Your task to perform on an android device: toggle sleep mode Image 0: 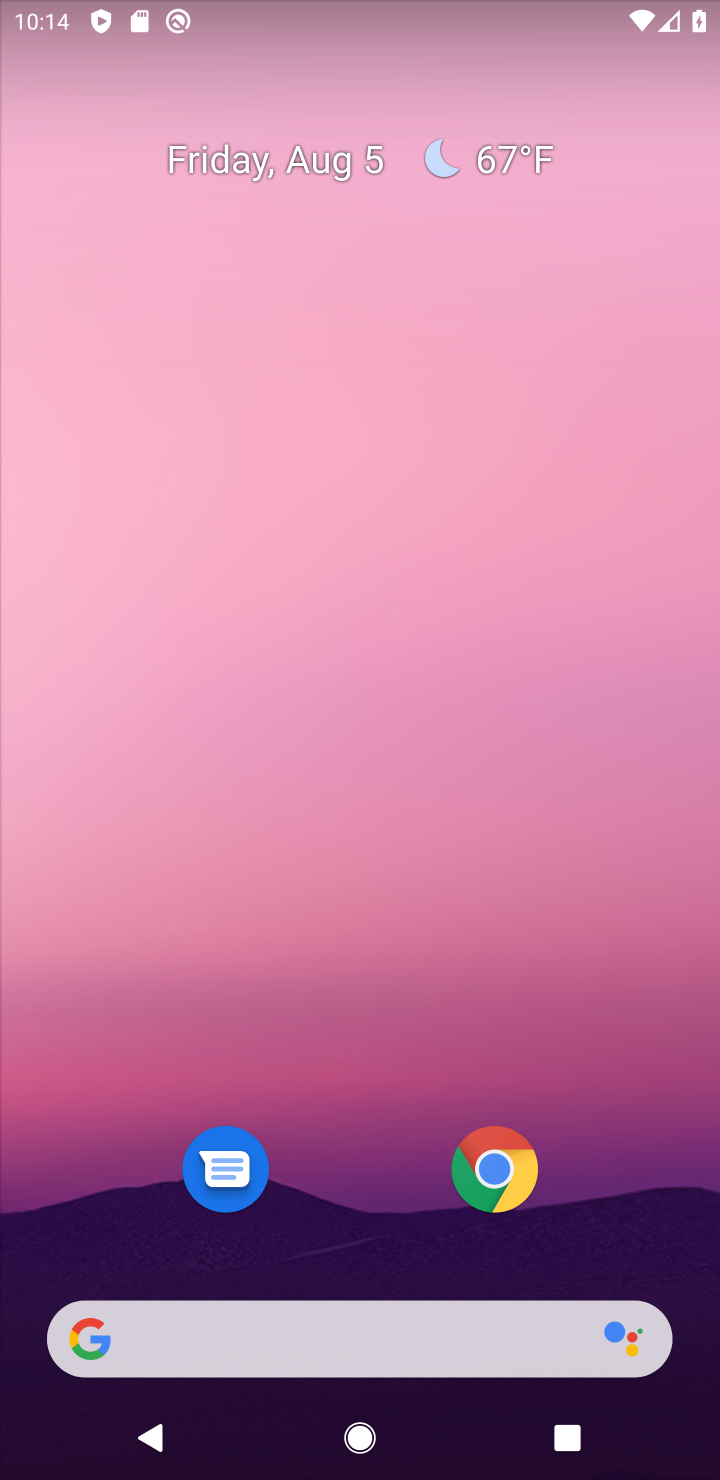
Step 0: drag from (669, 1236) to (573, 327)
Your task to perform on an android device: toggle sleep mode Image 1: 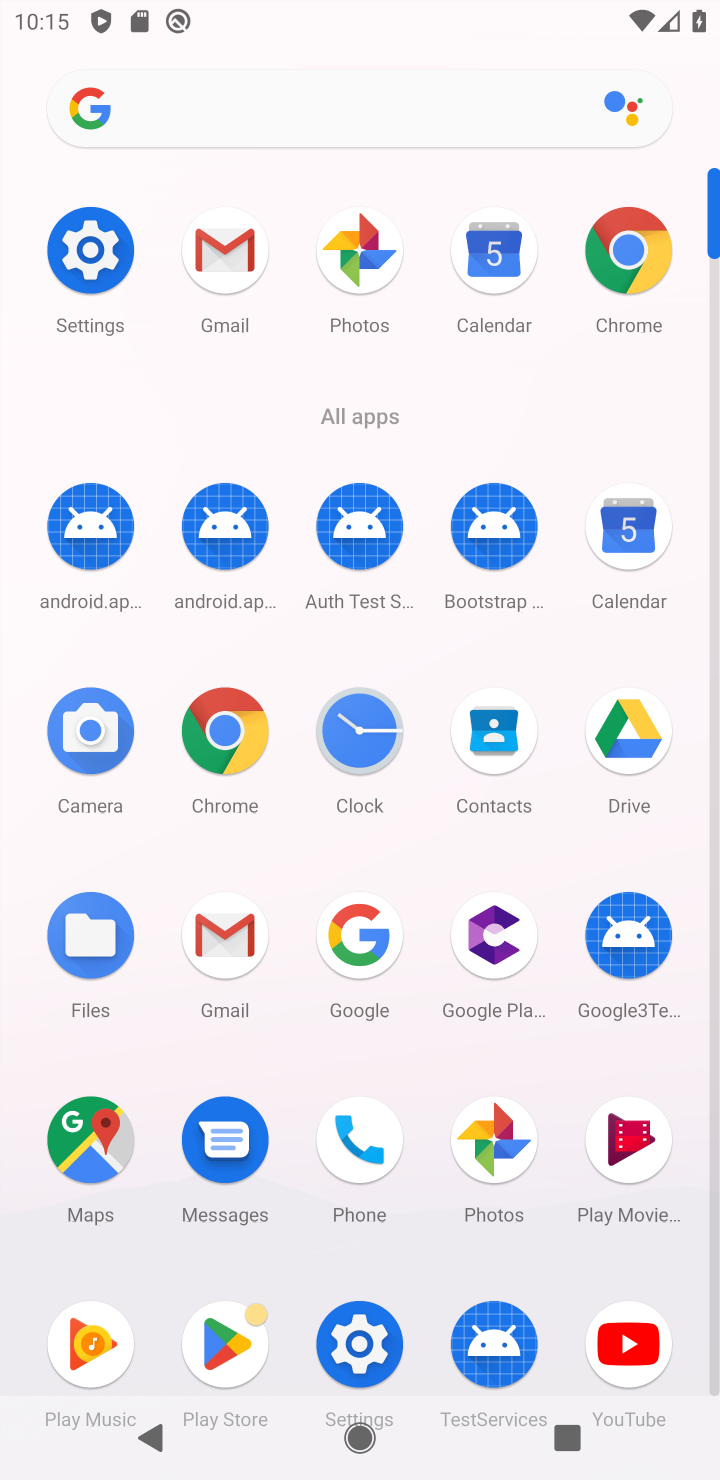
Step 1: click (364, 1346)
Your task to perform on an android device: toggle sleep mode Image 2: 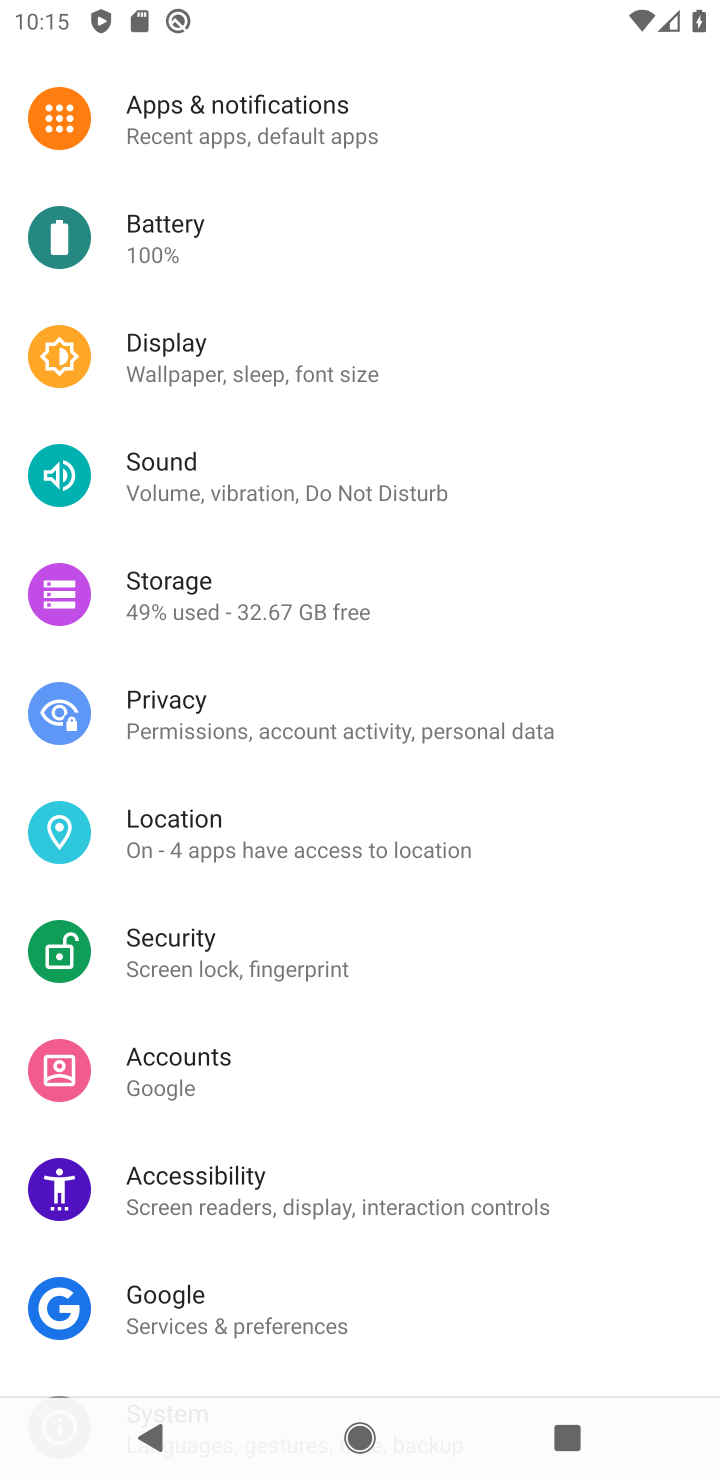
Step 2: click (185, 356)
Your task to perform on an android device: toggle sleep mode Image 3: 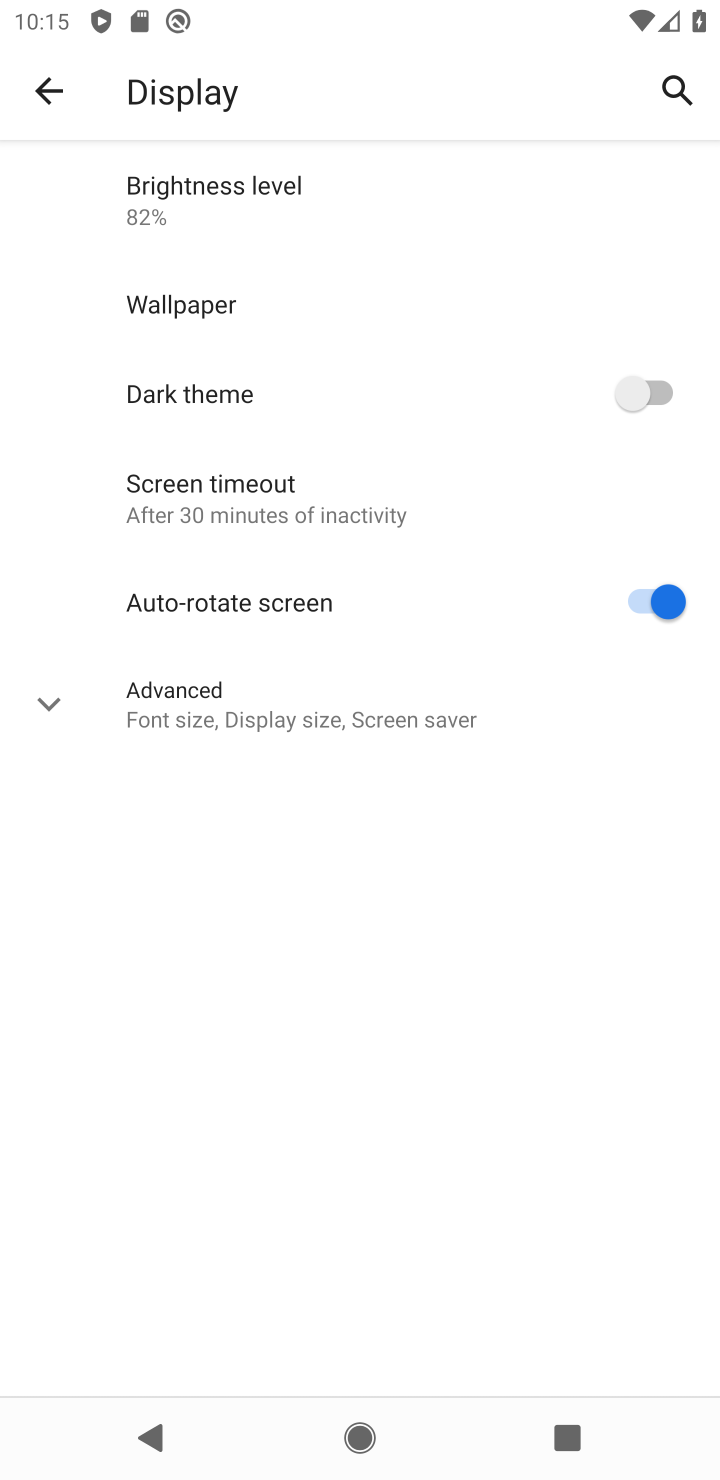
Step 3: click (56, 712)
Your task to perform on an android device: toggle sleep mode Image 4: 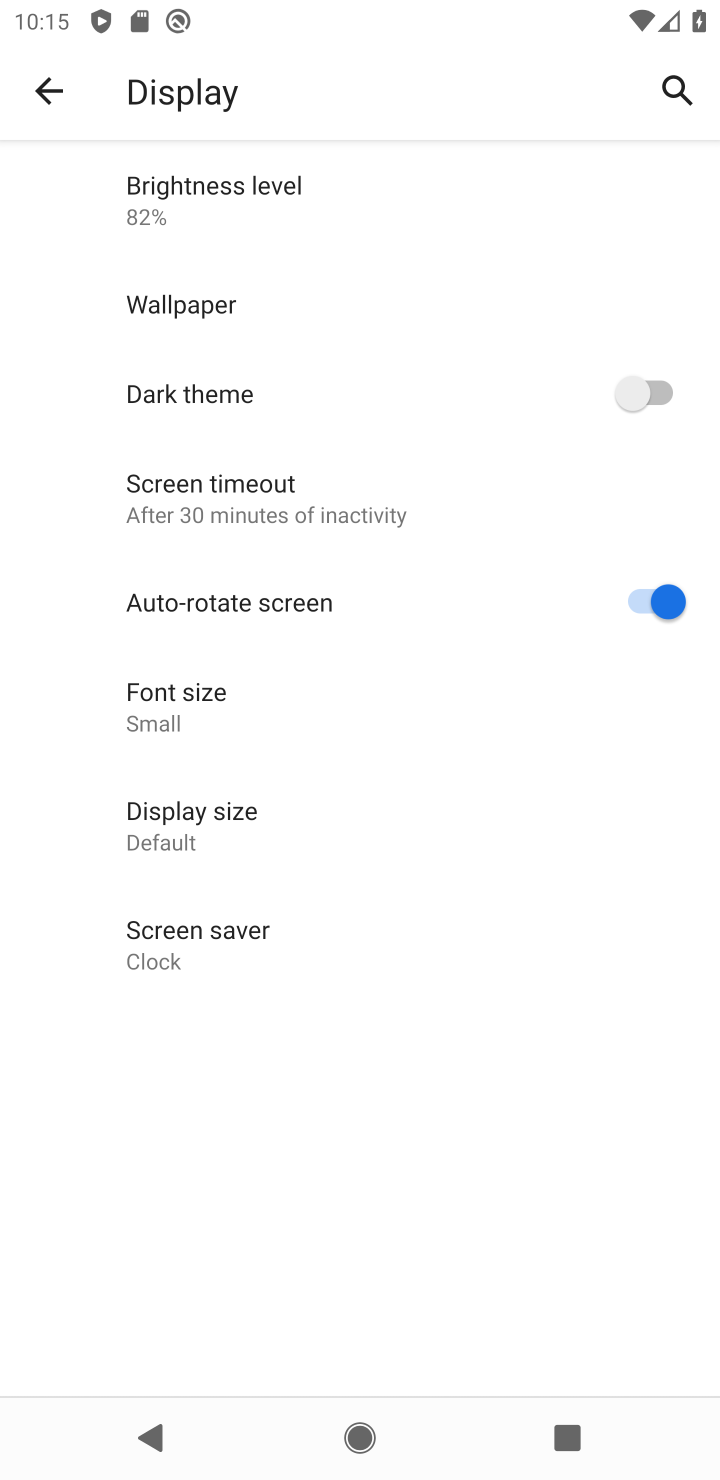
Step 4: task complete